Your task to perform on an android device: uninstall "Spotify: Music and Podcasts" Image 0: 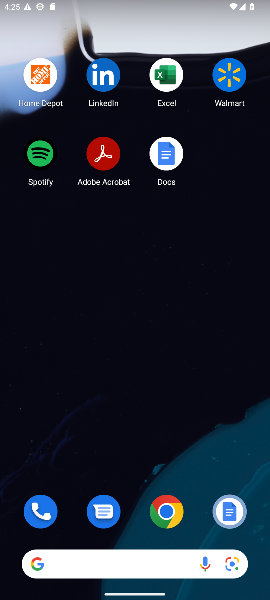
Step 0: click (136, 88)
Your task to perform on an android device: uninstall "Spotify: Music and Podcasts" Image 1: 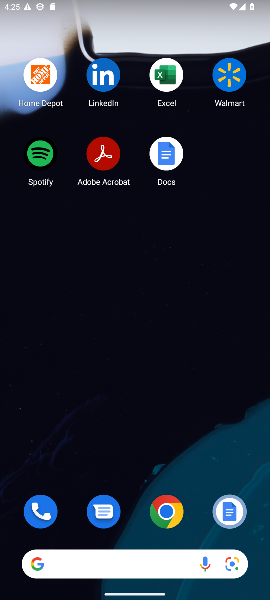
Step 1: drag from (123, 516) to (154, 180)
Your task to perform on an android device: uninstall "Spotify: Music and Podcasts" Image 2: 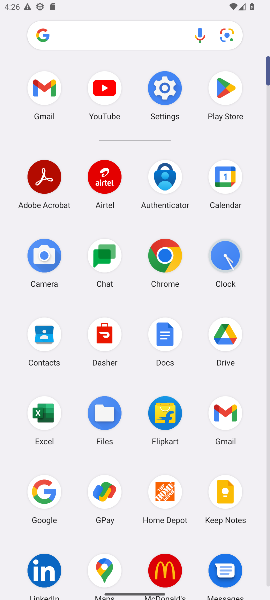
Step 2: click (213, 115)
Your task to perform on an android device: uninstall "Spotify: Music and Podcasts" Image 3: 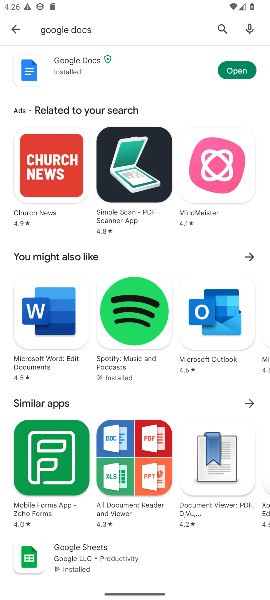
Step 3: click (16, 27)
Your task to perform on an android device: uninstall "Spotify: Music and Podcasts" Image 4: 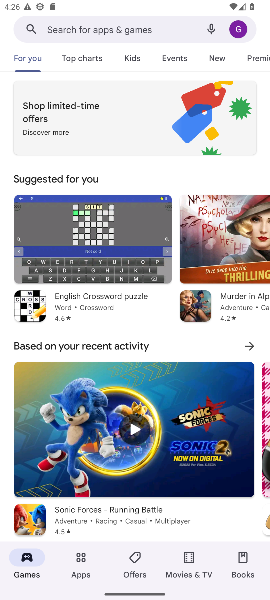
Step 4: click (122, 26)
Your task to perform on an android device: uninstall "Spotify: Music and Podcasts" Image 5: 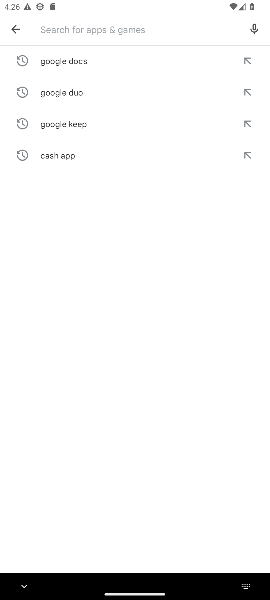
Step 5: type "spotify"
Your task to perform on an android device: uninstall "Spotify: Music and Podcasts" Image 6: 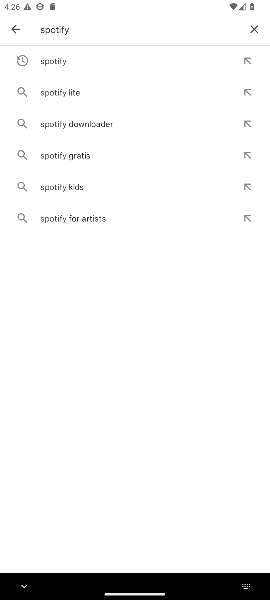
Step 6: click (69, 61)
Your task to perform on an android device: uninstall "Spotify: Music and Podcasts" Image 7: 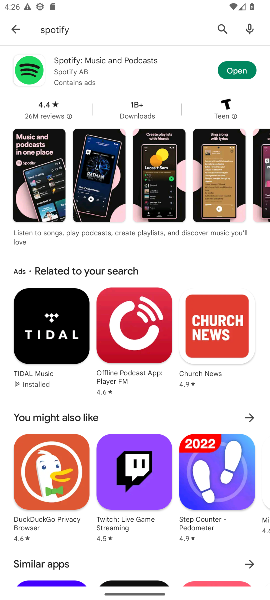
Step 7: click (101, 66)
Your task to perform on an android device: uninstall "Spotify: Music and Podcasts" Image 8: 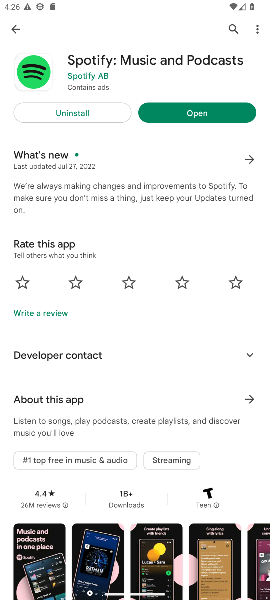
Step 8: click (59, 112)
Your task to perform on an android device: uninstall "Spotify: Music and Podcasts" Image 9: 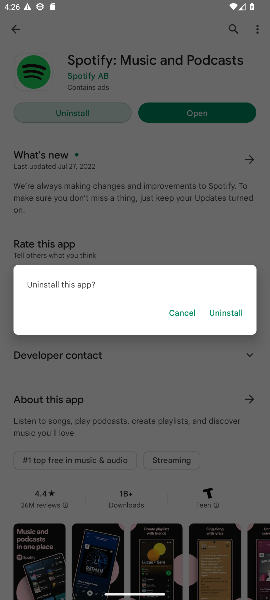
Step 9: click (201, 121)
Your task to perform on an android device: uninstall "Spotify: Music and Podcasts" Image 10: 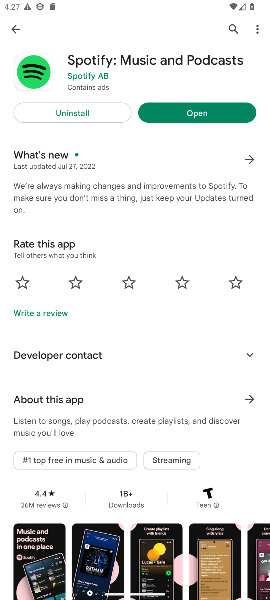
Step 10: click (104, 116)
Your task to perform on an android device: uninstall "Spotify: Music and Podcasts" Image 11: 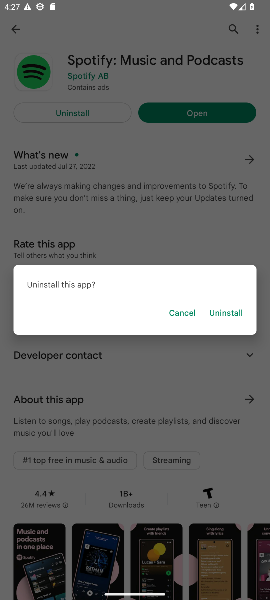
Step 11: click (230, 315)
Your task to perform on an android device: uninstall "Spotify: Music and Podcasts" Image 12: 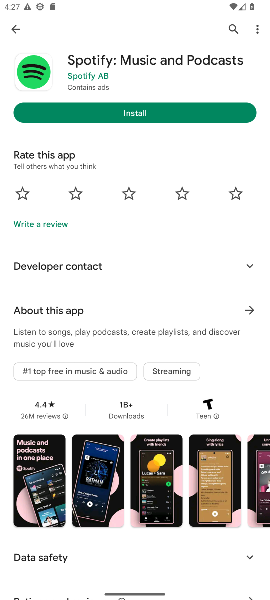
Step 12: task complete